Your task to perform on an android device: change timer sound Image 0: 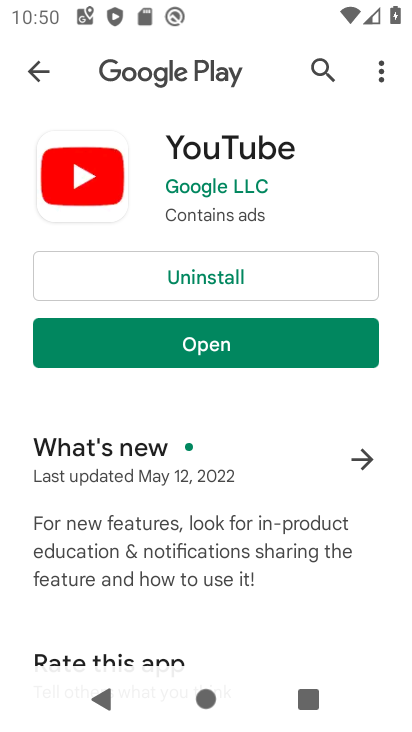
Step 0: press home button
Your task to perform on an android device: change timer sound Image 1: 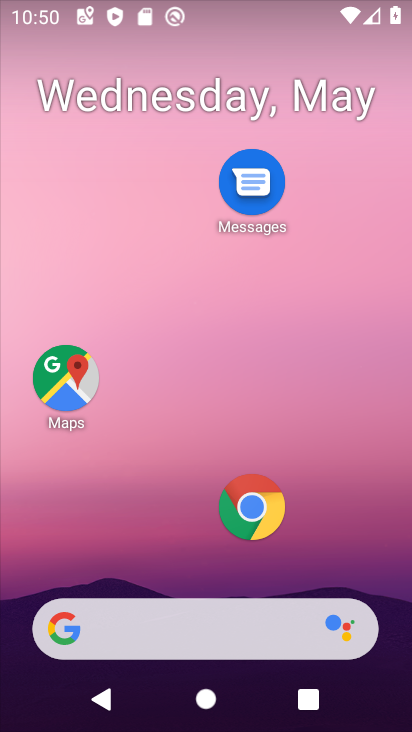
Step 1: drag from (196, 579) to (238, 54)
Your task to perform on an android device: change timer sound Image 2: 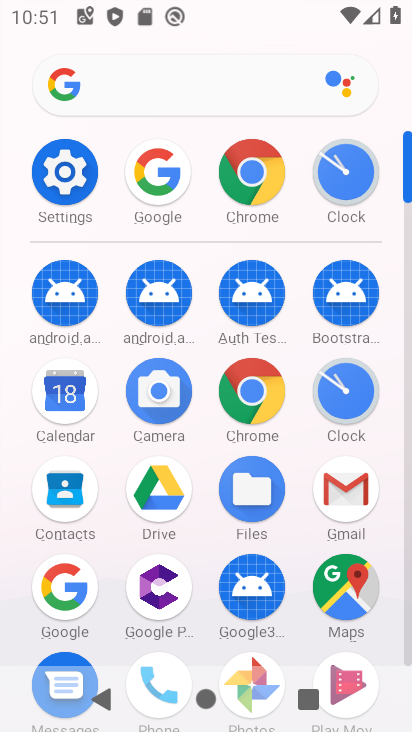
Step 2: click (344, 166)
Your task to perform on an android device: change timer sound Image 3: 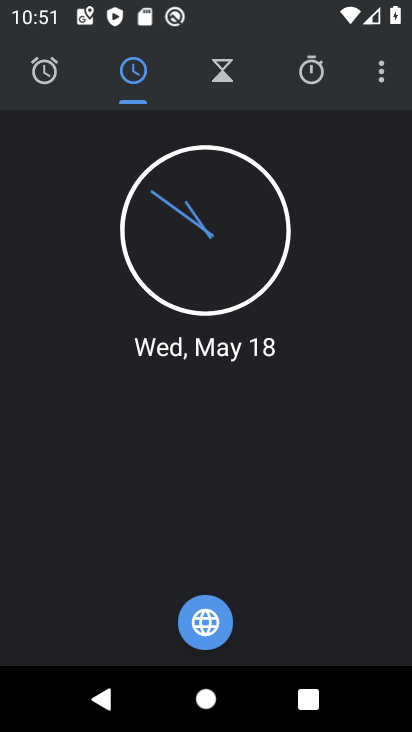
Step 3: click (385, 74)
Your task to perform on an android device: change timer sound Image 4: 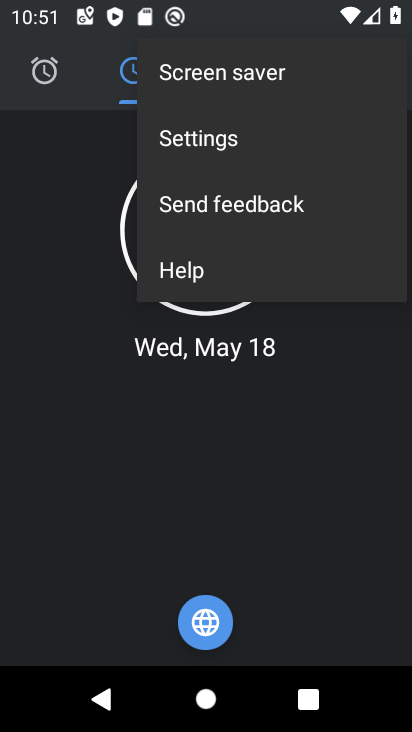
Step 4: click (250, 136)
Your task to perform on an android device: change timer sound Image 5: 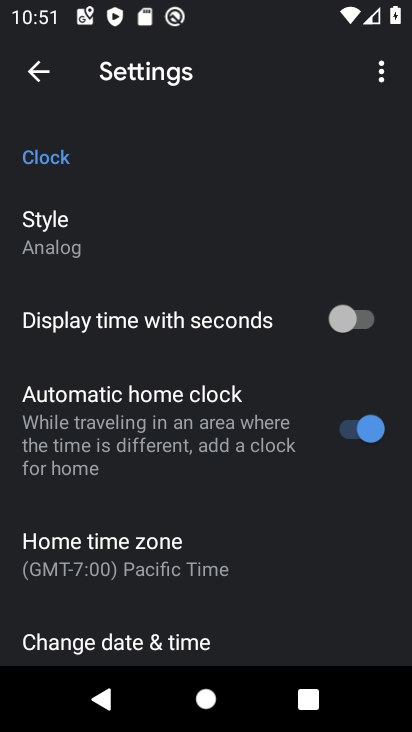
Step 5: drag from (262, 608) to (298, 217)
Your task to perform on an android device: change timer sound Image 6: 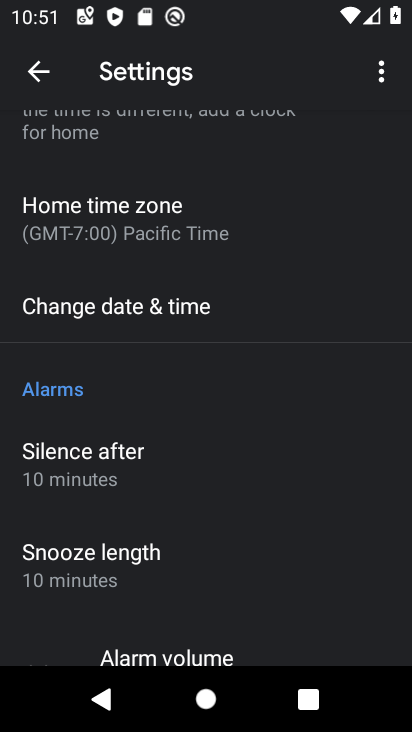
Step 6: drag from (209, 586) to (263, 149)
Your task to perform on an android device: change timer sound Image 7: 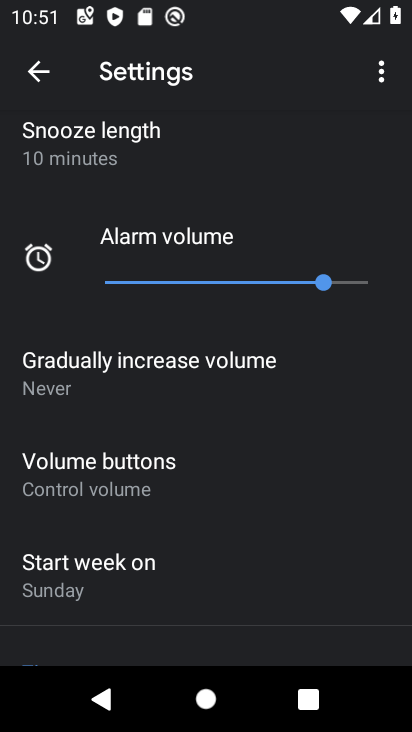
Step 7: drag from (180, 573) to (212, 253)
Your task to perform on an android device: change timer sound Image 8: 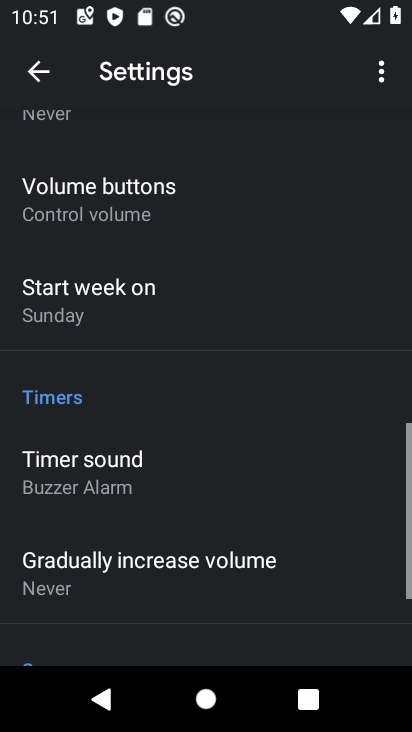
Step 8: click (212, 214)
Your task to perform on an android device: change timer sound Image 9: 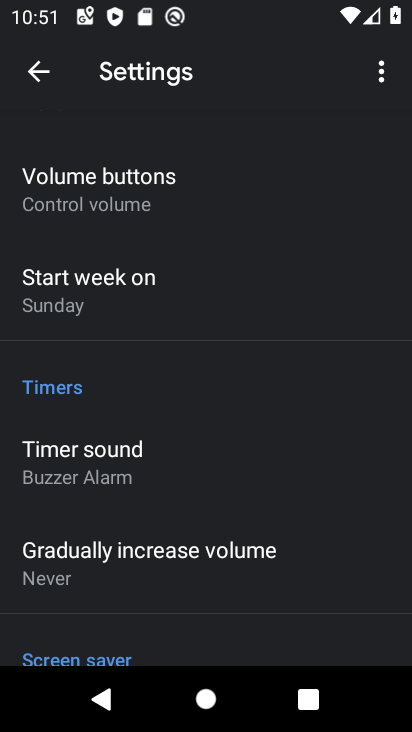
Step 9: click (158, 465)
Your task to perform on an android device: change timer sound Image 10: 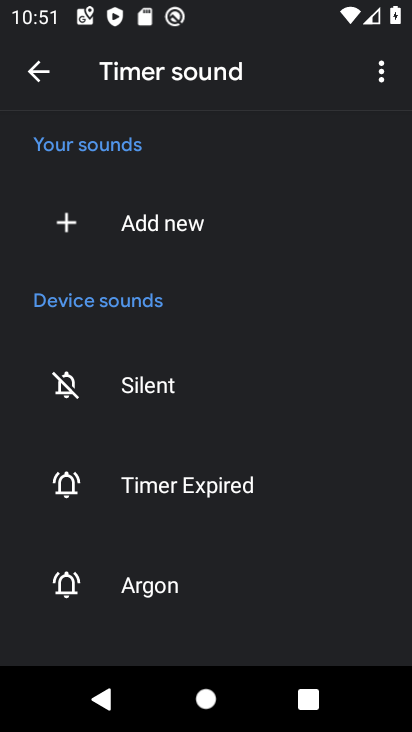
Step 10: click (207, 581)
Your task to perform on an android device: change timer sound Image 11: 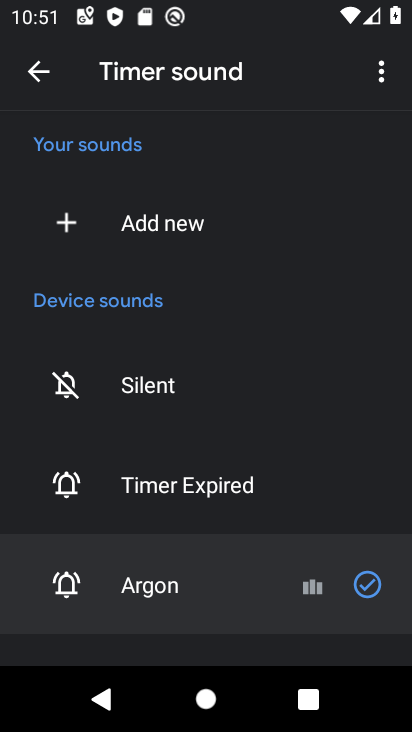
Step 11: task complete